Your task to perform on an android device: turn notification dots off Image 0: 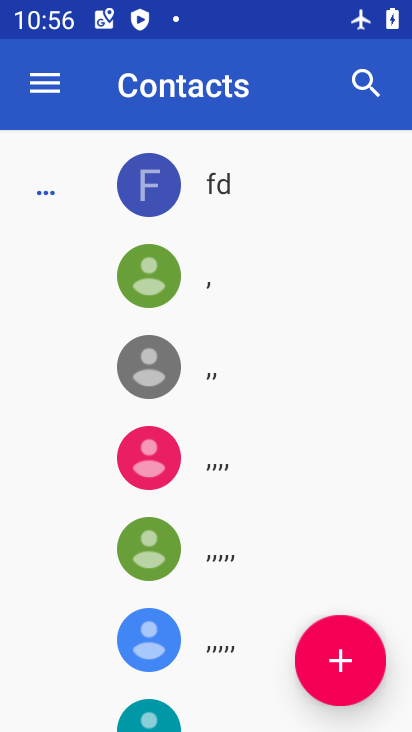
Step 0: press home button
Your task to perform on an android device: turn notification dots off Image 1: 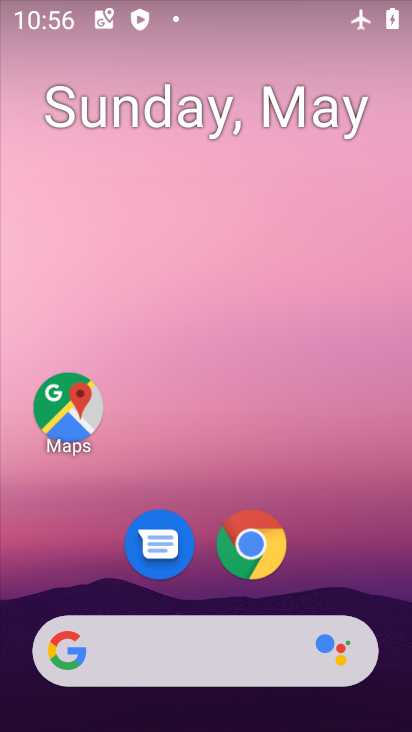
Step 1: drag from (309, 571) to (273, 266)
Your task to perform on an android device: turn notification dots off Image 2: 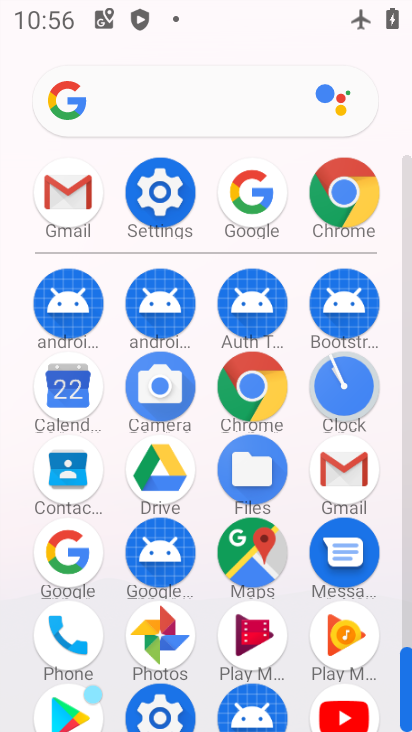
Step 2: click (160, 198)
Your task to perform on an android device: turn notification dots off Image 3: 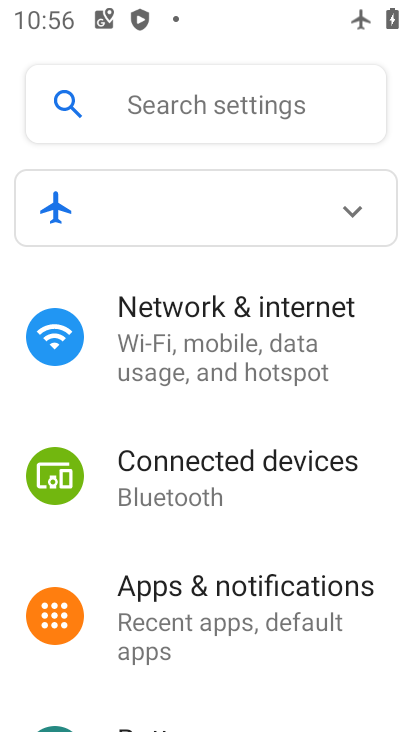
Step 3: click (263, 87)
Your task to perform on an android device: turn notification dots off Image 4: 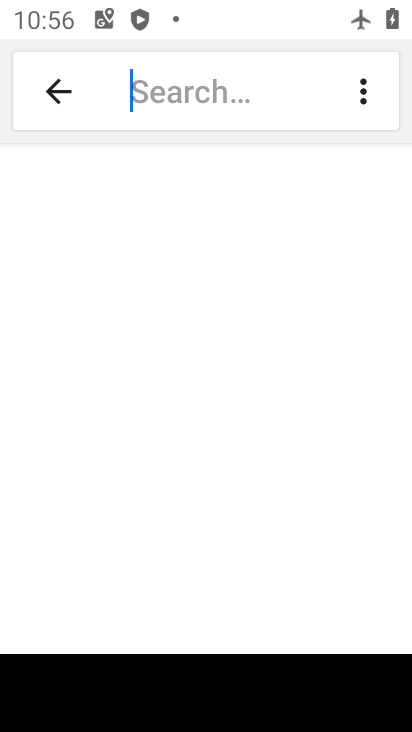
Step 4: type "notification dots"
Your task to perform on an android device: turn notification dots off Image 5: 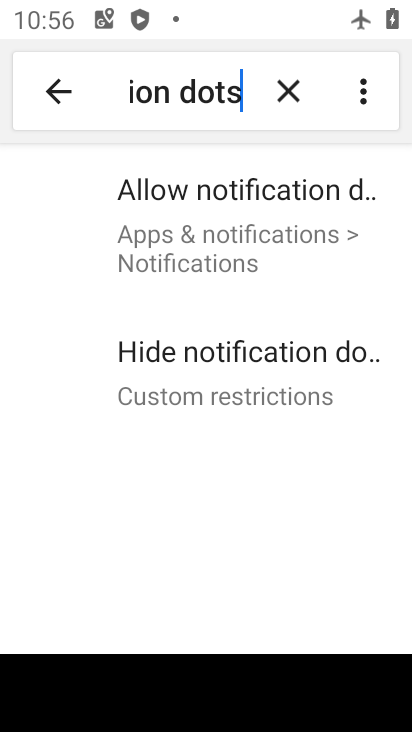
Step 5: click (224, 217)
Your task to perform on an android device: turn notification dots off Image 6: 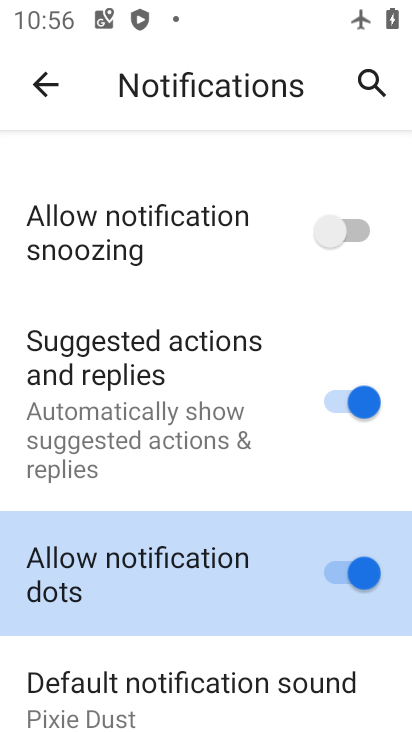
Step 6: click (344, 581)
Your task to perform on an android device: turn notification dots off Image 7: 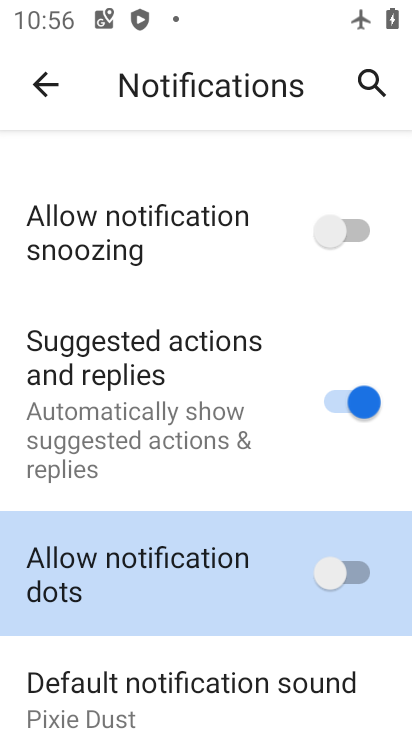
Step 7: task complete